Your task to perform on an android device: Go to Wikipedia Image 0: 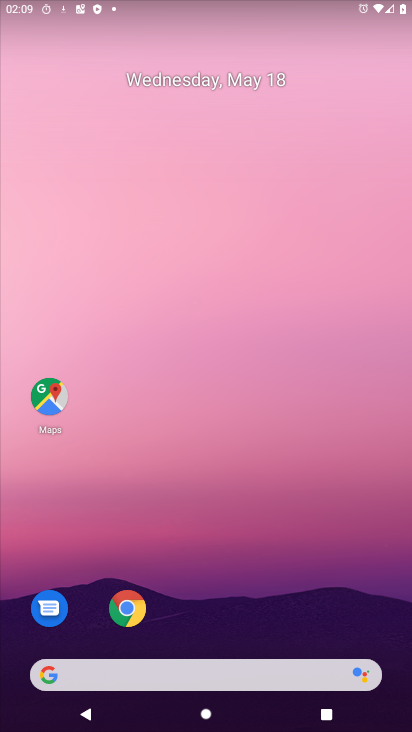
Step 0: press home button
Your task to perform on an android device: Go to Wikipedia Image 1: 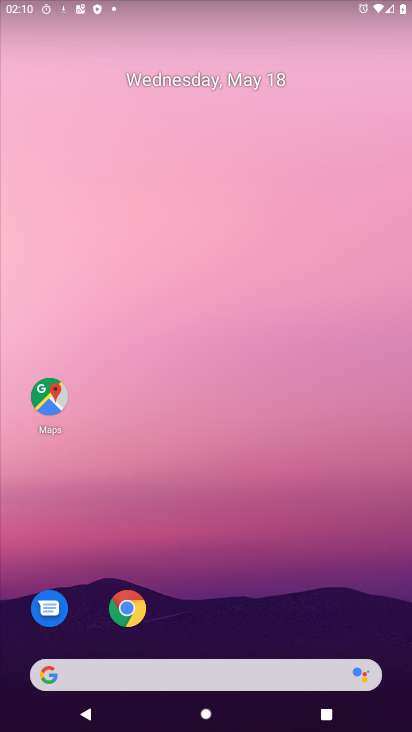
Step 1: drag from (270, 683) to (104, 214)
Your task to perform on an android device: Go to Wikipedia Image 2: 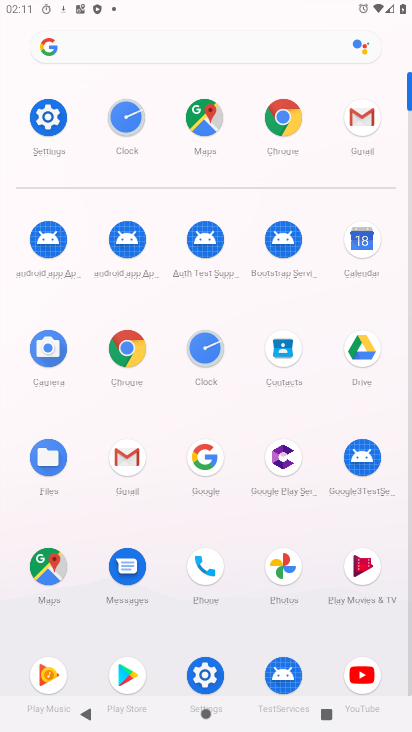
Step 2: click (292, 125)
Your task to perform on an android device: Go to Wikipedia Image 3: 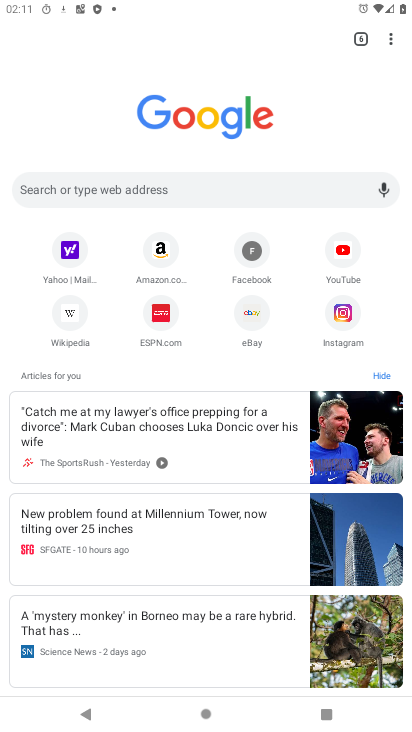
Step 3: click (88, 314)
Your task to perform on an android device: Go to Wikipedia Image 4: 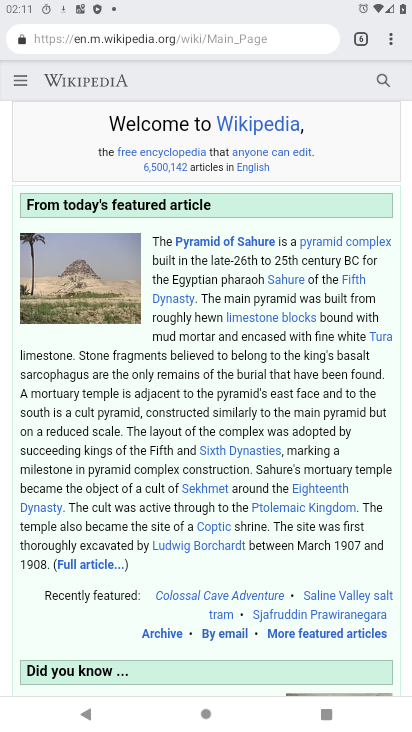
Step 4: task complete